Your task to perform on an android device: Open the calendar app, open the side menu, and click the "Day" option Image 0: 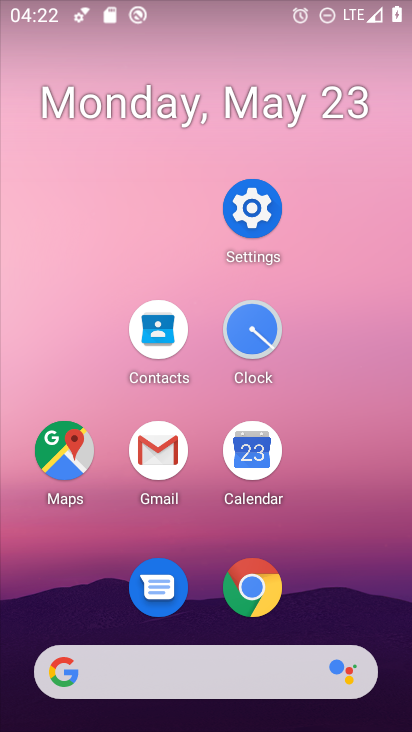
Step 0: click (263, 459)
Your task to perform on an android device: Open the calendar app, open the side menu, and click the "Day" option Image 1: 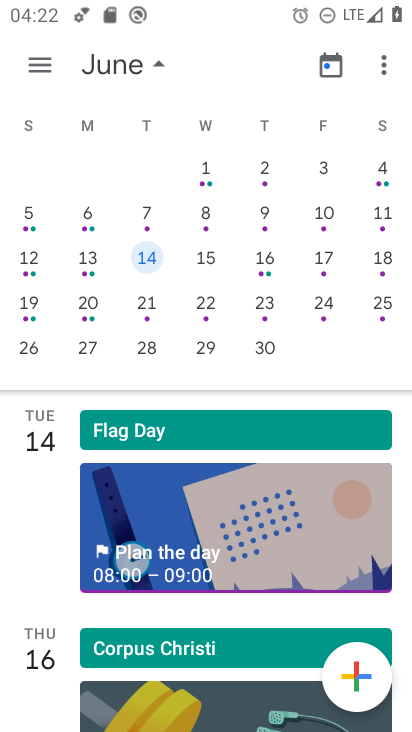
Step 1: click (67, 72)
Your task to perform on an android device: Open the calendar app, open the side menu, and click the "Day" option Image 2: 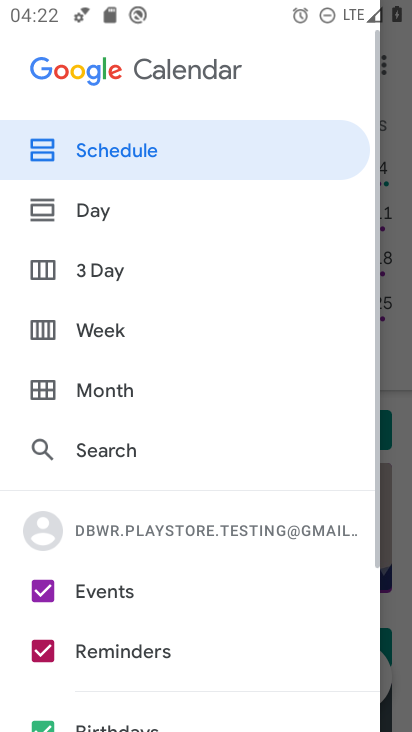
Step 2: click (134, 201)
Your task to perform on an android device: Open the calendar app, open the side menu, and click the "Day" option Image 3: 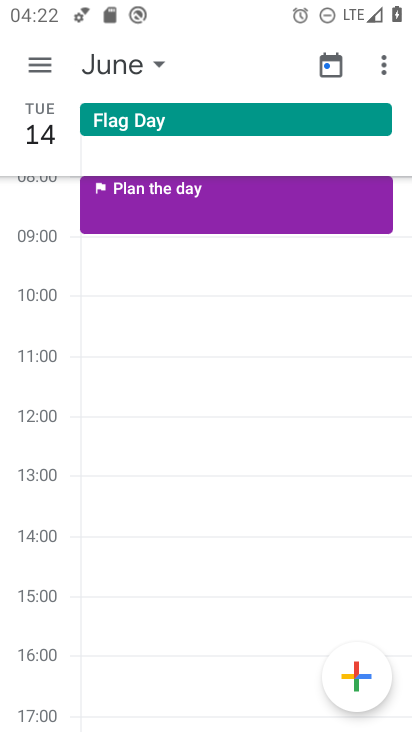
Step 3: task complete